Your task to perform on an android device: open app "eBay: The shopping marketplace" (install if not already installed) Image 0: 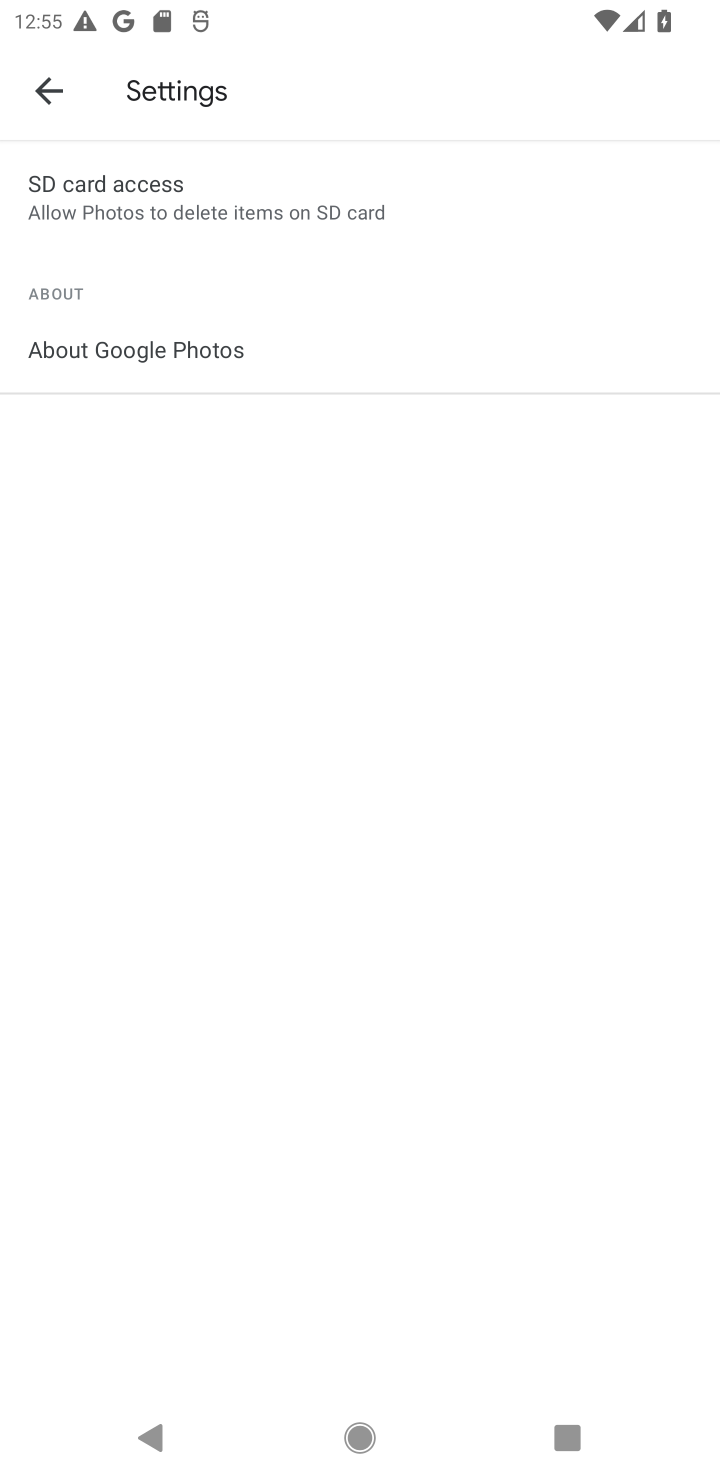
Step 0: press home button
Your task to perform on an android device: open app "eBay: The shopping marketplace" (install if not already installed) Image 1: 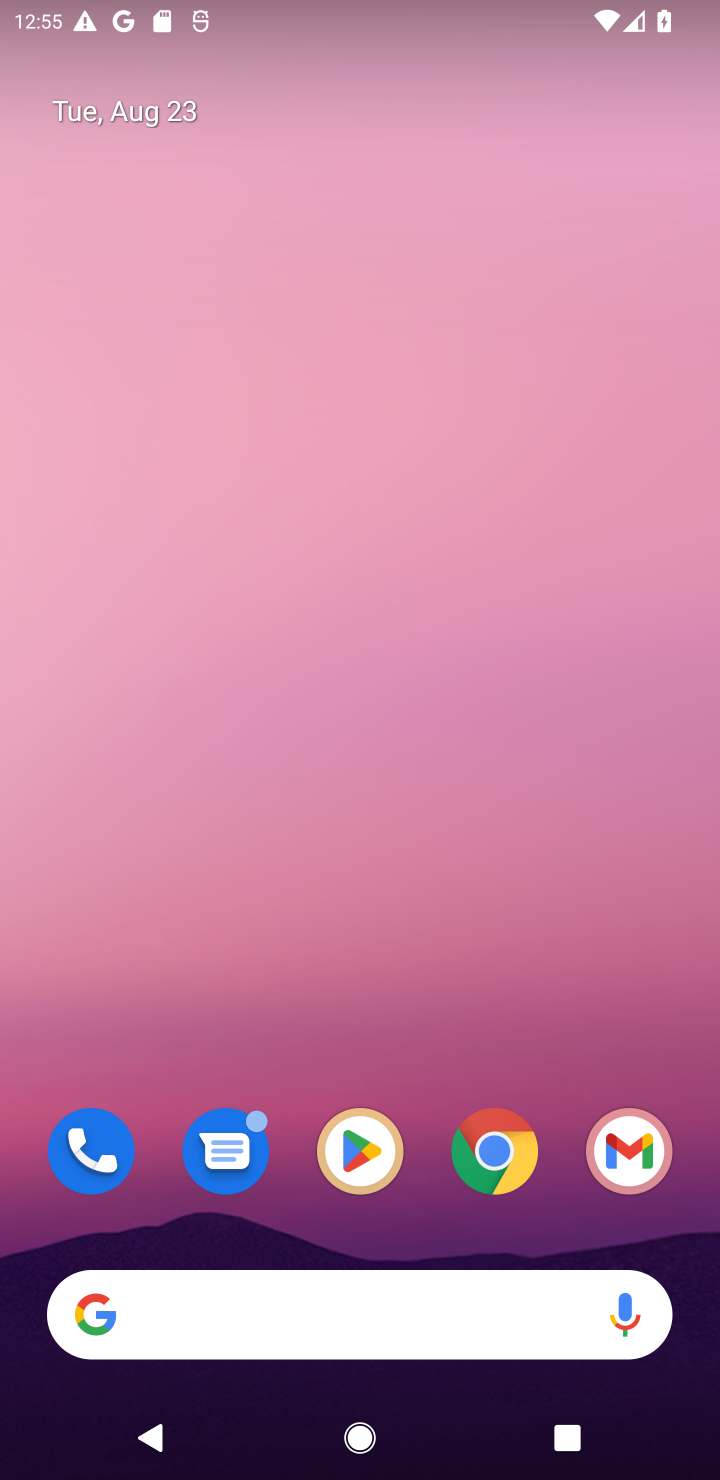
Step 1: click (356, 1128)
Your task to perform on an android device: open app "eBay: The shopping marketplace" (install if not already installed) Image 2: 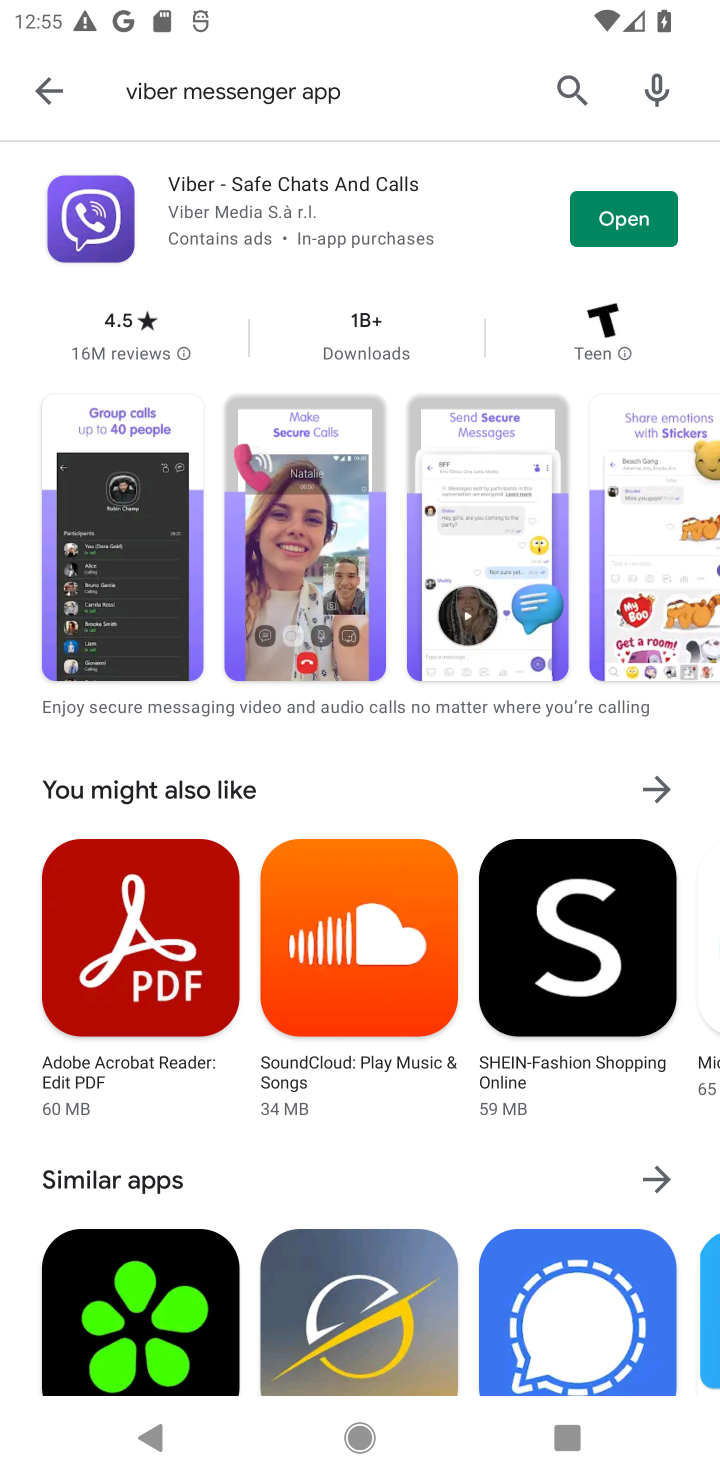
Step 2: click (573, 86)
Your task to perform on an android device: open app "eBay: The shopping marketplace" (install if not already installed) Image 3: 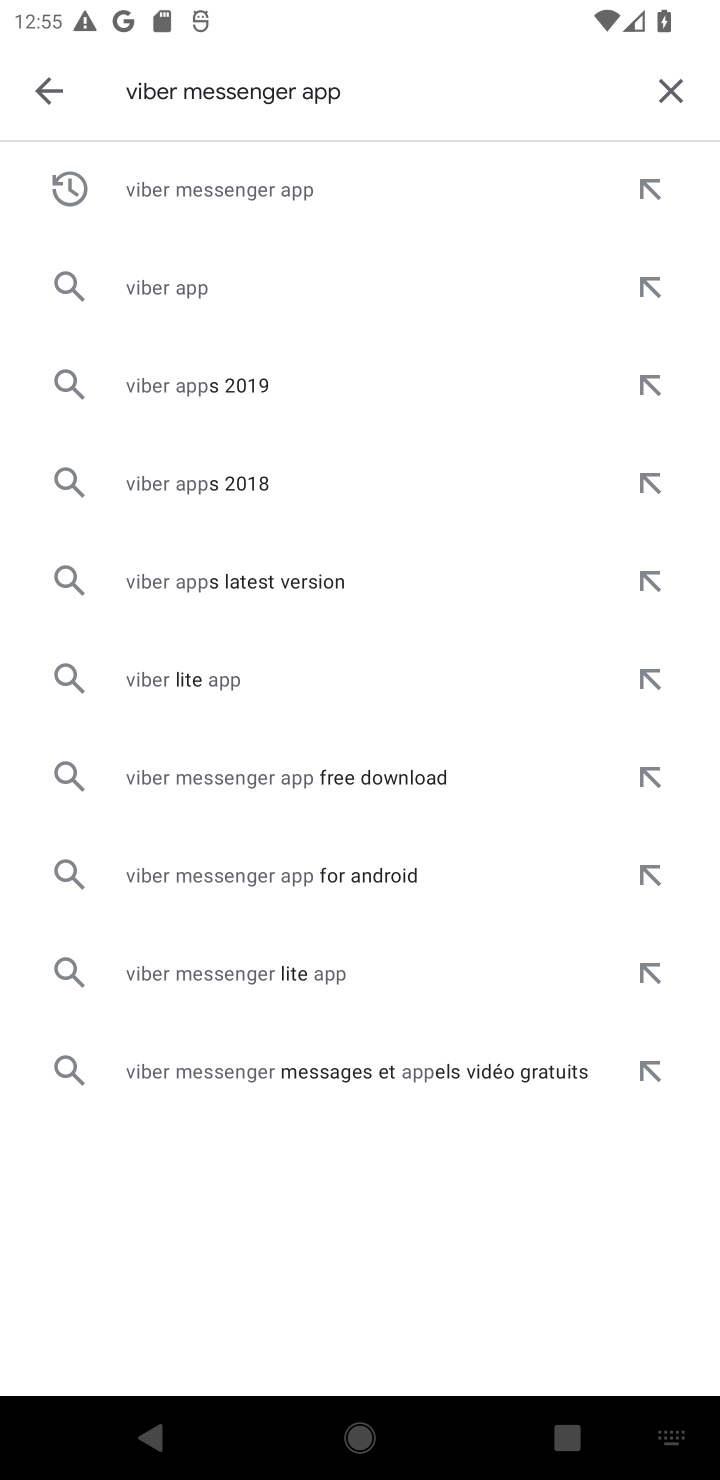
Step 3: click (658, 88)
Your task to perform on an android device: open app "eBay: The shopping marketplace" (install if not already installed) Image 4: 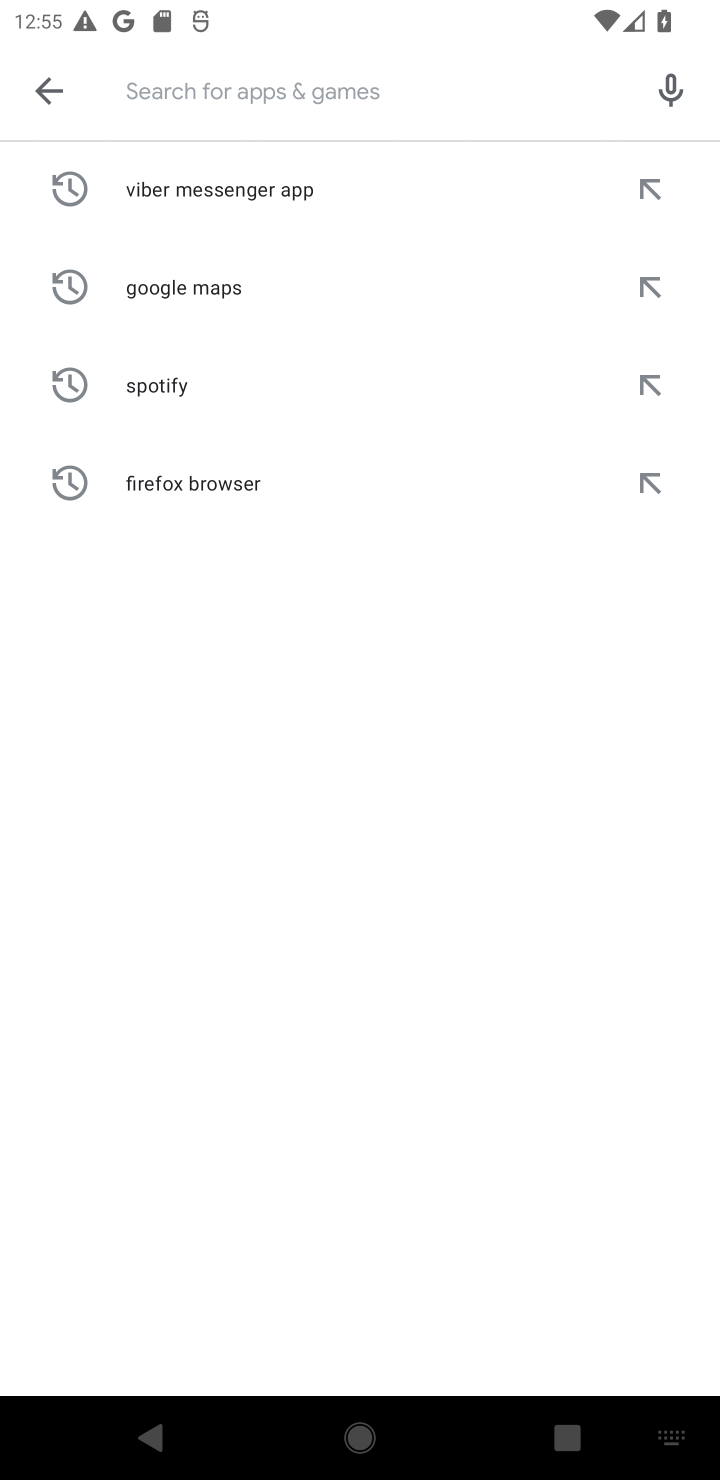
Step 4: click (280, 106)
Your task to perform on an android device: open app "eBay: The shopping marketplace" (install if not already installed) Image 5: 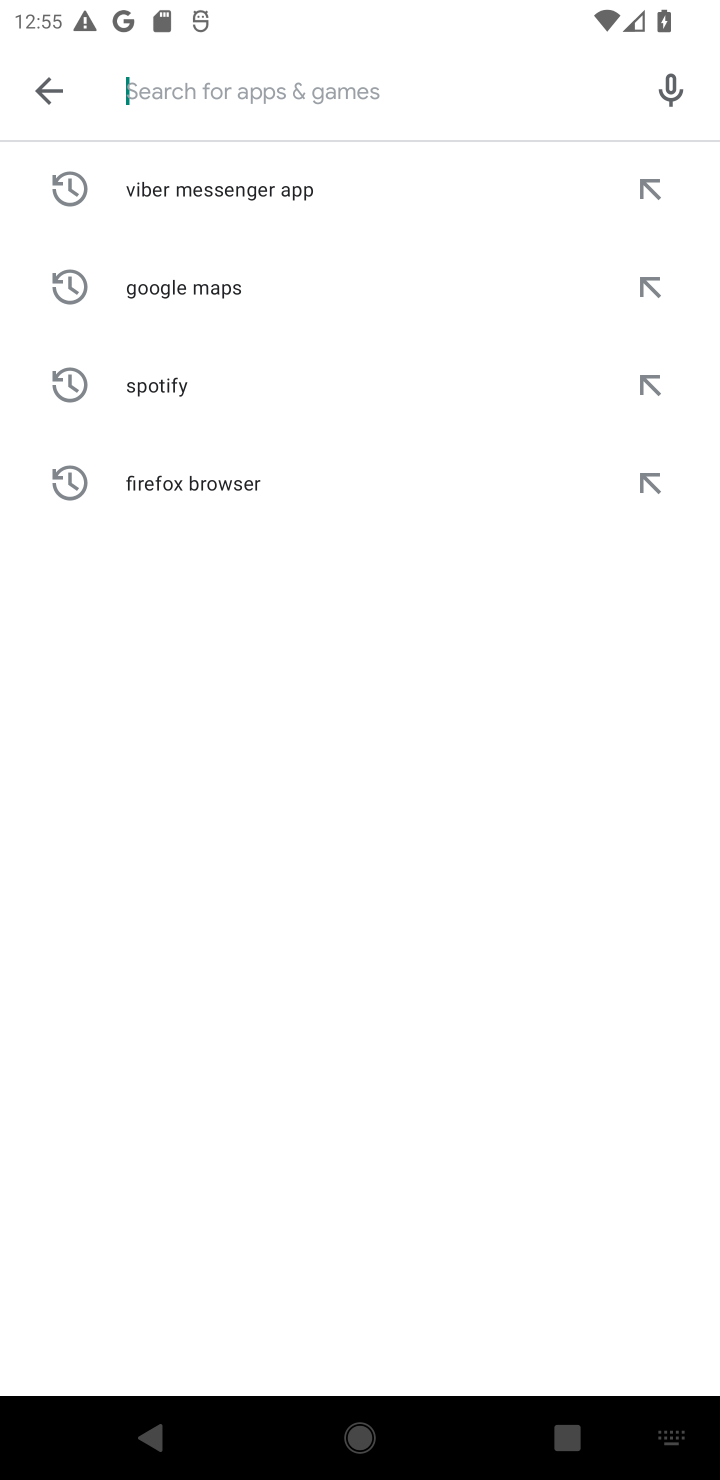
Step 5: type "eBay: The shopping marketplac"
Your task to perform on an android device: open app "eBay: The shopping marketplace" (install if not already installed) Image 6: 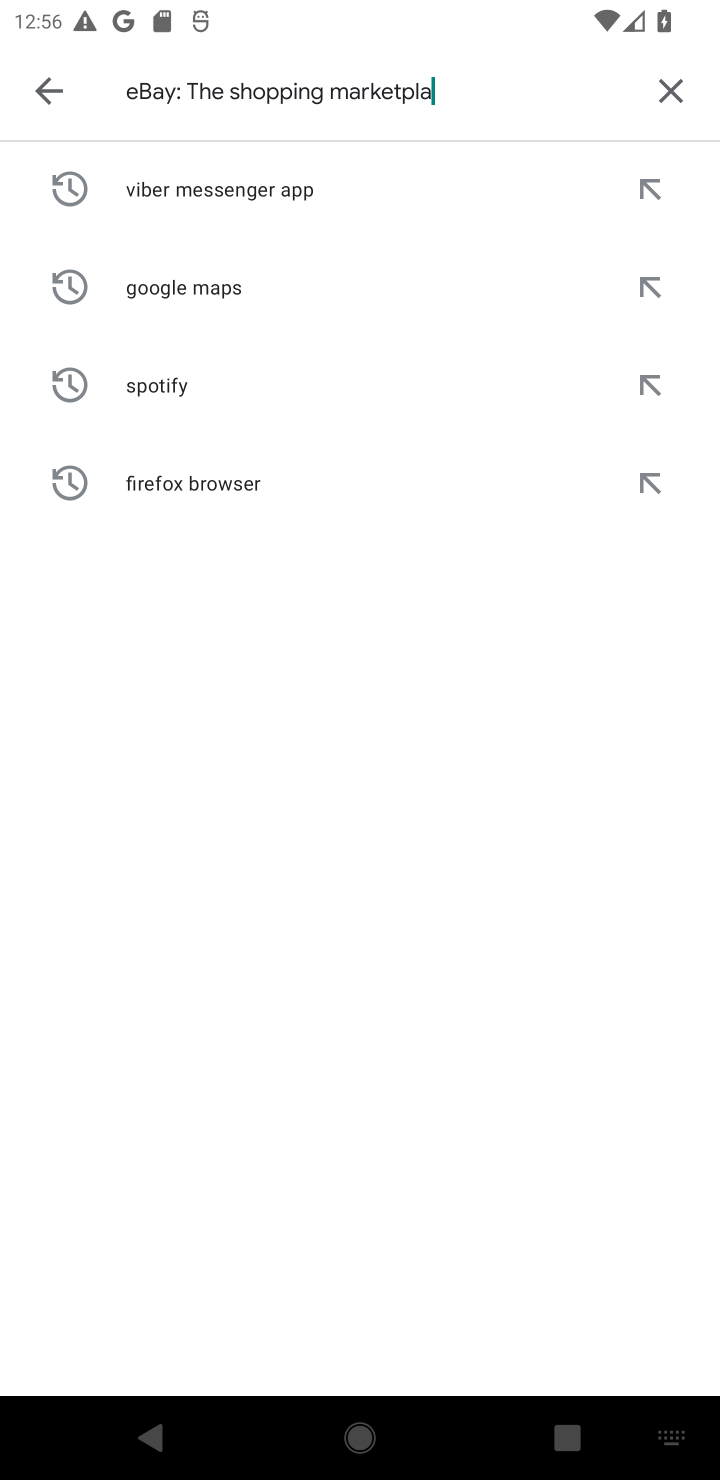
Step 6: type ""
Your task to perform on an android device: open app "eBay: The shopping marketplace" (install if not already installed) Image 7: 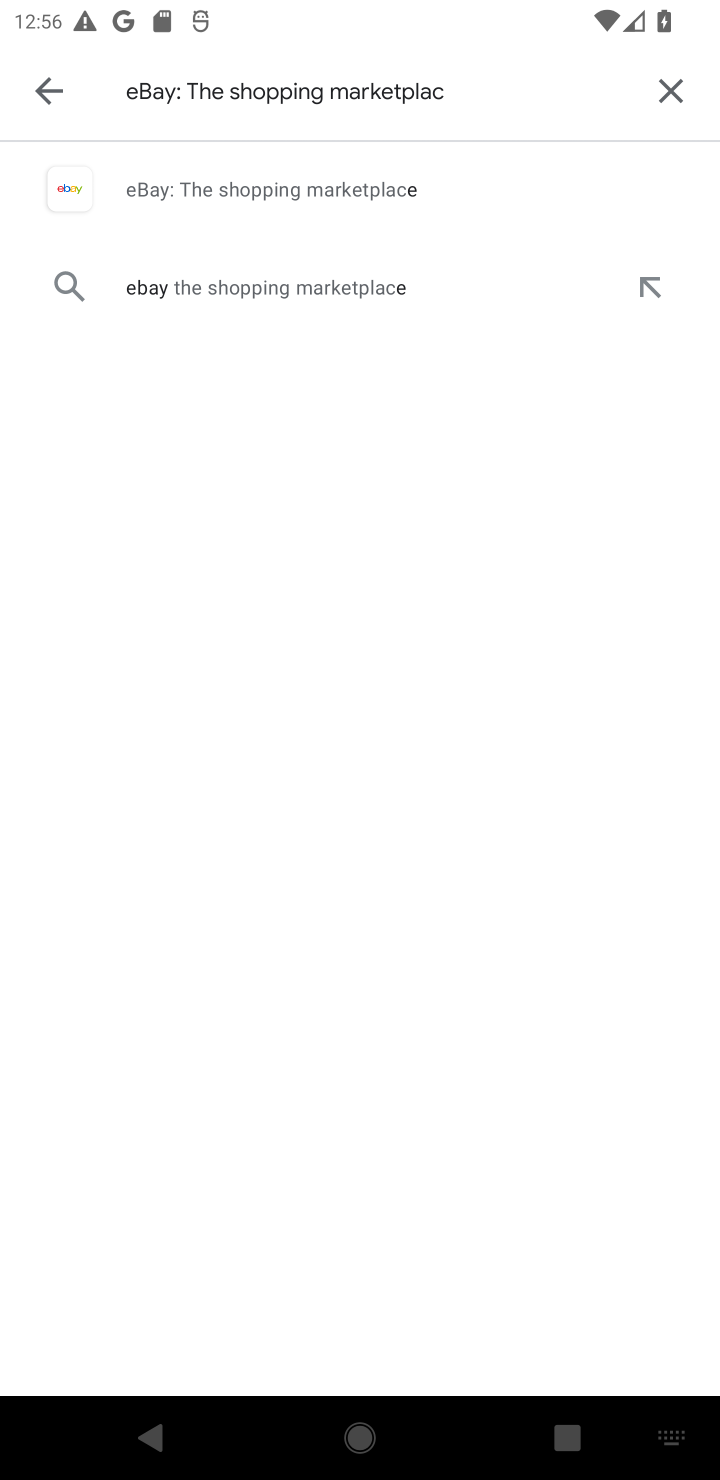
Step 7: click (337, 173)
Your task to perform on an android device: open app "eBay: The shopping marketplace" (install if not already installed) Image 8: 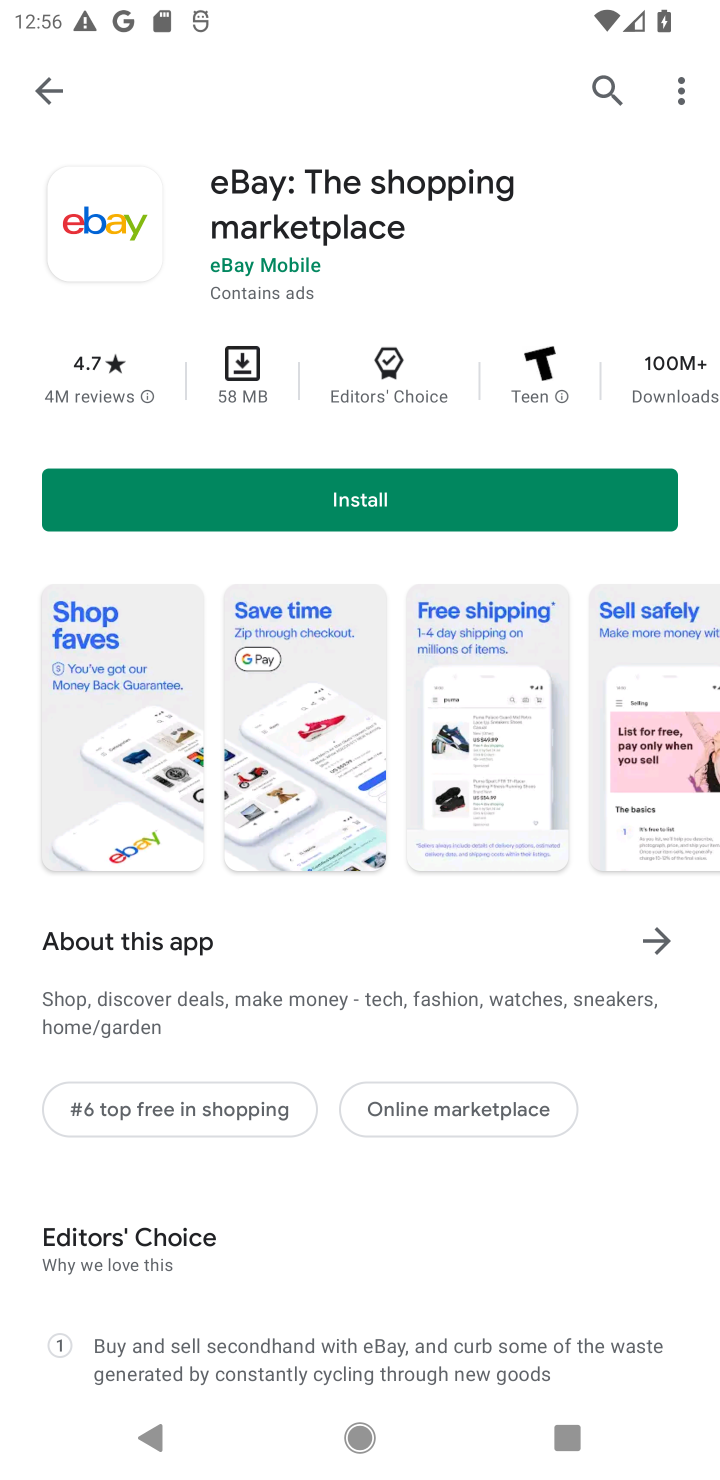
Step 8: click (394, 496)
Your task to perform on an android device: open app "eBay: The shopping marketplace" (install if not already installed) Image 9: 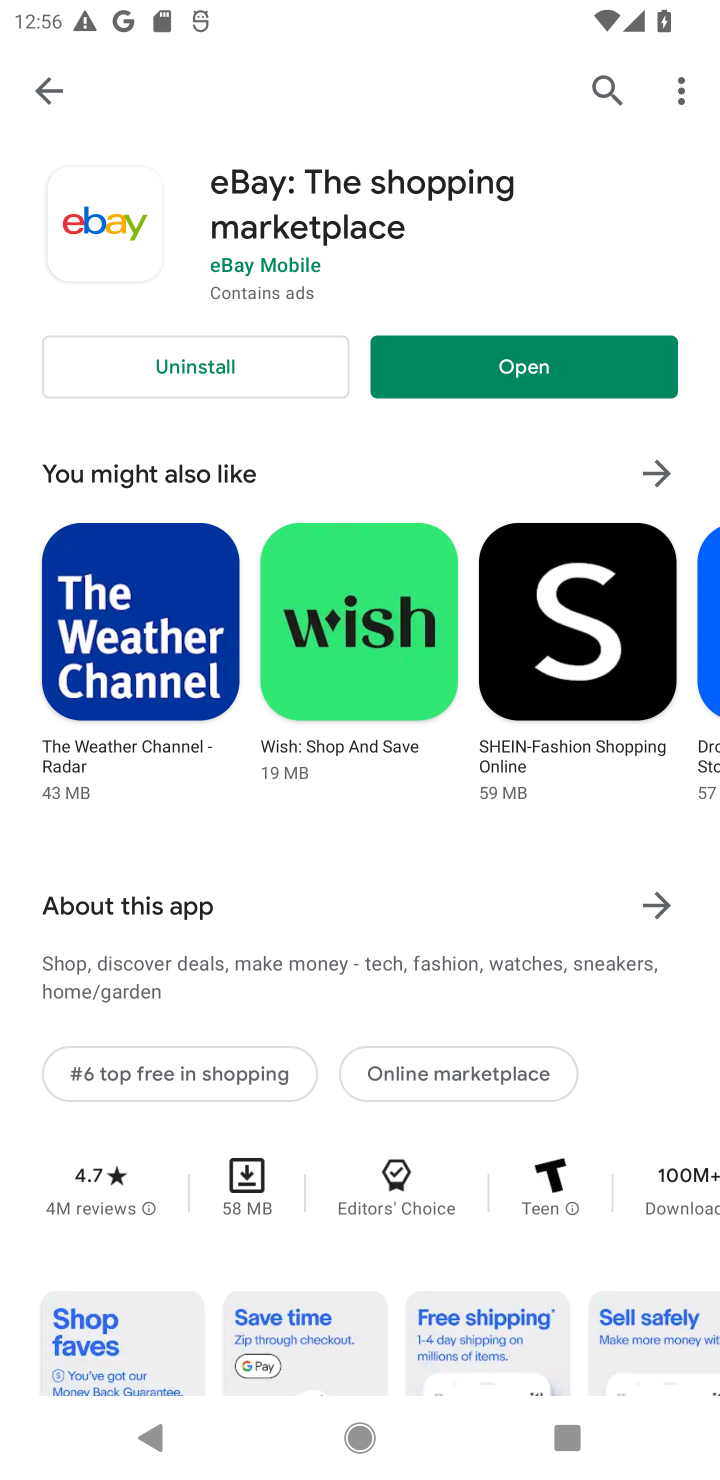
Step 9: click (496, 373)
Your task to perform on an android device: open app "eBay: The shopping marketplace" (install if not already installed) Image 10: 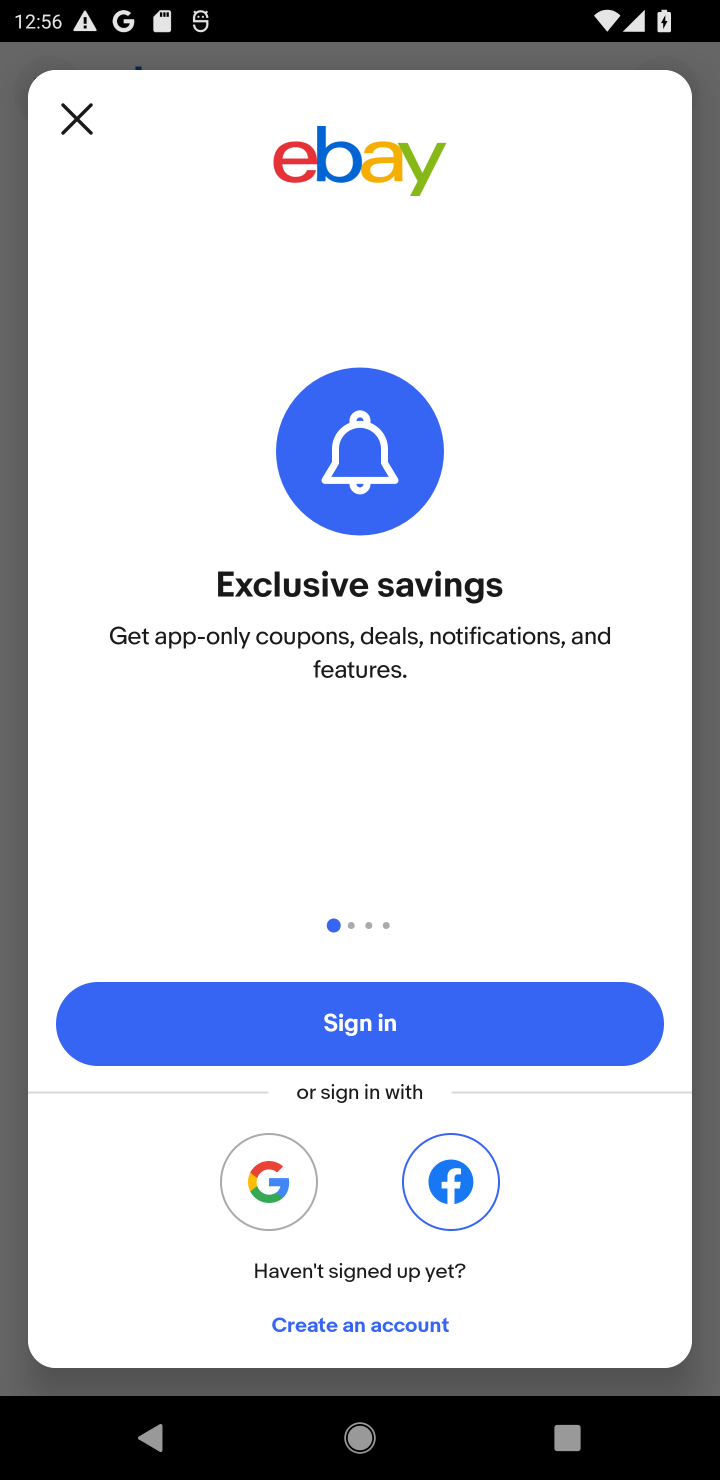
Step 10: task complete